Your task to perform on an android device: Open sound settings Image 0: 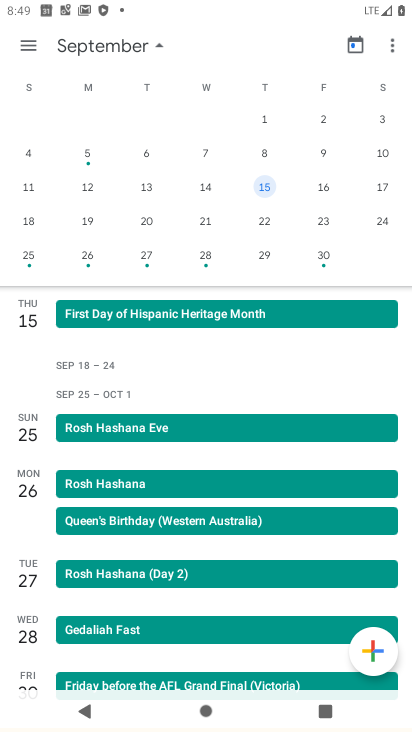
Step 0: press home button
Your task to perform on an android device: Open sound settings Image 1: 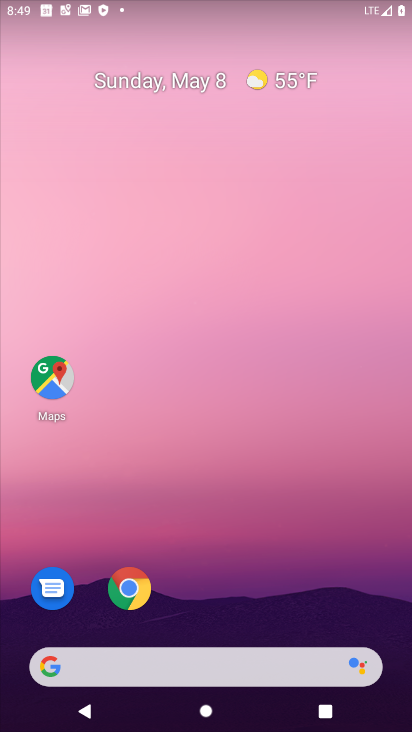
Step 1: drag from (329, 603) to (244, 51)
Your task to perform on an android device: Open sound settings Image 2: 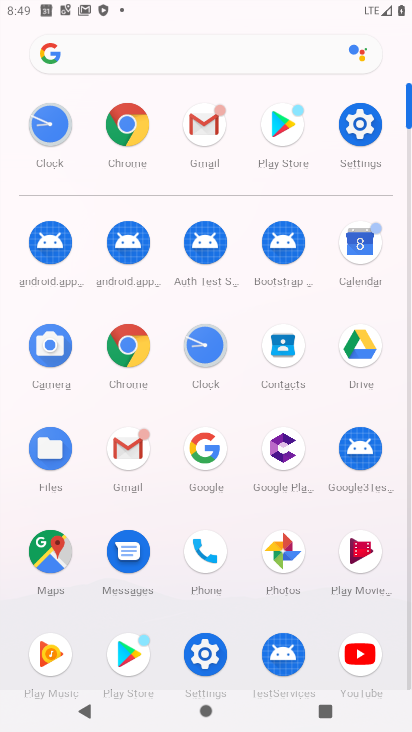
Step 2: click (208, 648)
Your task to perform on an android device: Open sound settings Image 3: 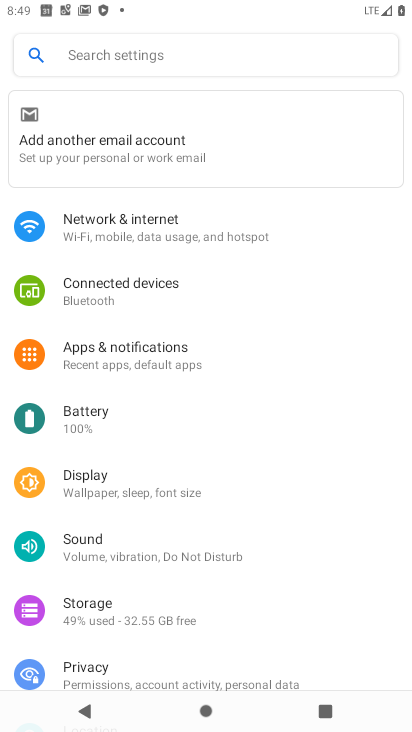
Step 3: click (127, 551)
Your task to perform on an android device: Open sound settings Image 4: 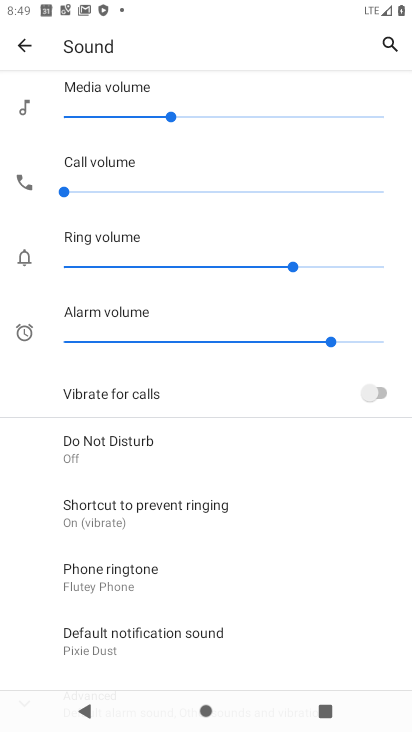
Step 4: task complete